Your task to perform on an android device: When is my next appointment? Image 0: 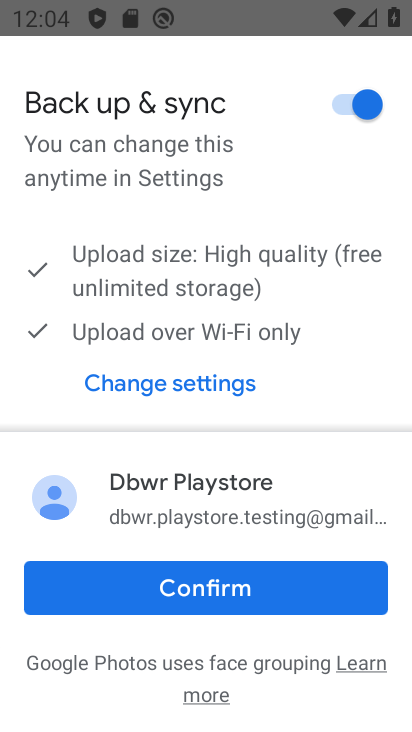
Step 0: press home button
Your task to perform on an android device: When is my next appointment? Image 1: 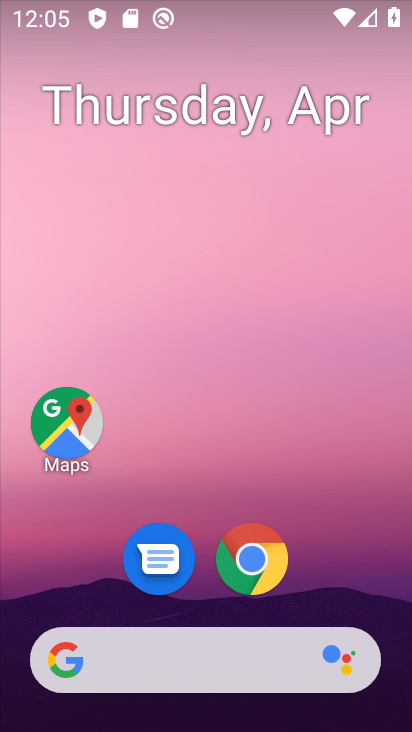
Step 1: drag from (229, 703) to (317, 57)
Your task to perform on an android device: When is my next appointment? Image 2: 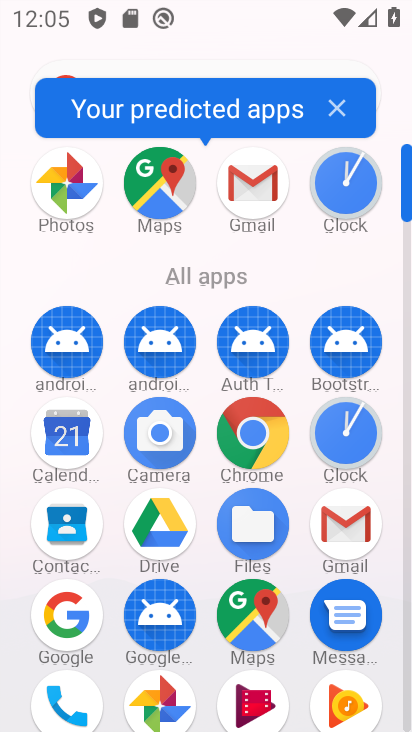
Step 2: click (260, 434)
Your task to perform on an android device: When is my next appointment? Image 3: 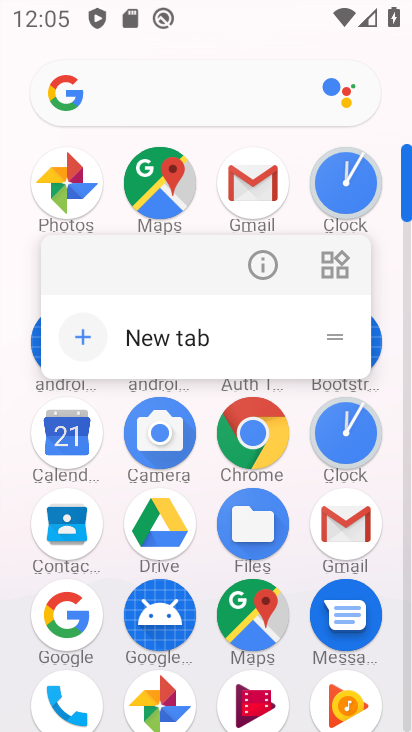
Step 3: drag from (285, 547) to (289, 440)
Your task to perform on an android device: When is my next appointment? Image 4: 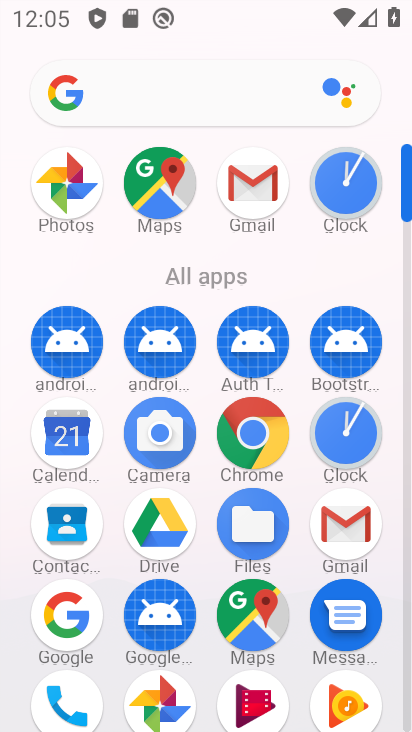
Step 4: click (85, 441)
Your task to perform on an android device: When is my next appointment? Image 5: 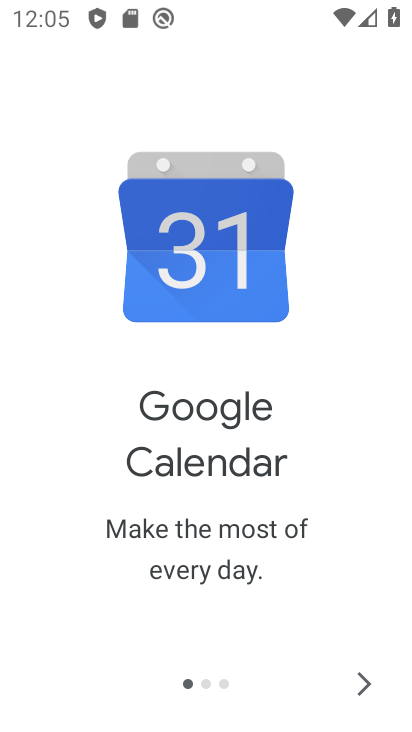
Step 5: click (353, 688)
Your task to perform on an android device: When is my next appointment? Image 6: 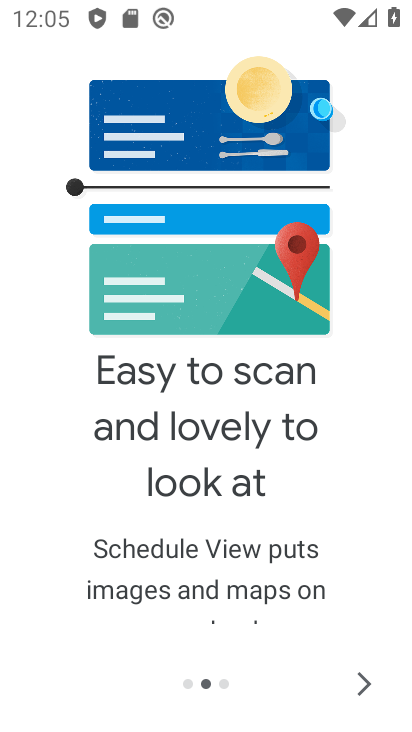
Step 6: click (365, 695)
Your task to perform on an android device: When is my next appointment? Image 7: 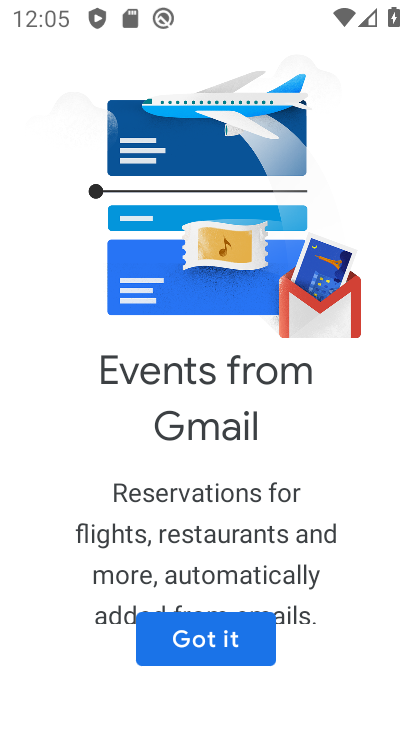
Step 7: click (278, 641)
Your task to perform on an android device: When is my next appointment? Image 8: 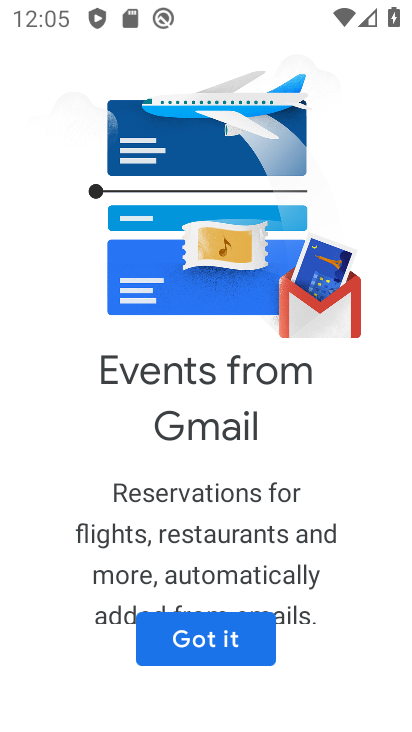
Step 8: click (244, 642)
Your task to perform on an android device: When is my next appointment? Image 9: 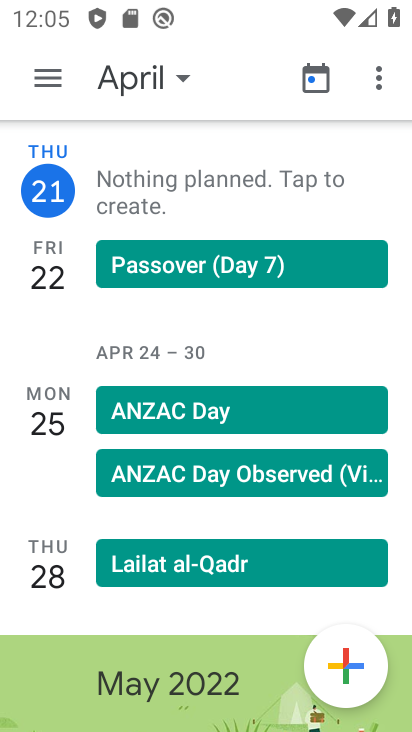
Step 9: task complete